Your task to perform on an android device: Go to Google maps Image 0: 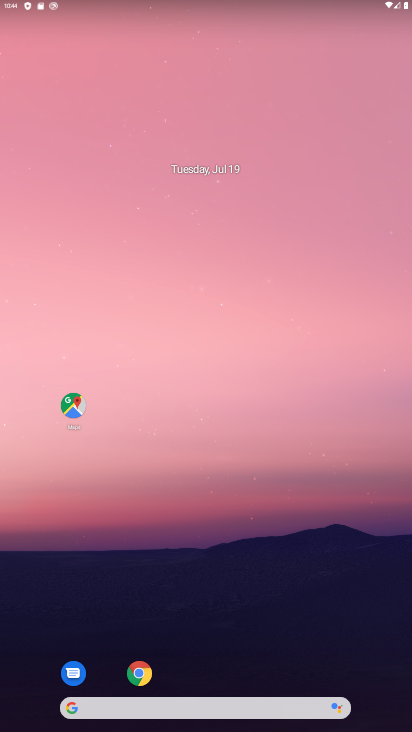
Step 0: click (74, 405)
Your task to perform on an android device: Go to Google maps Image 1: 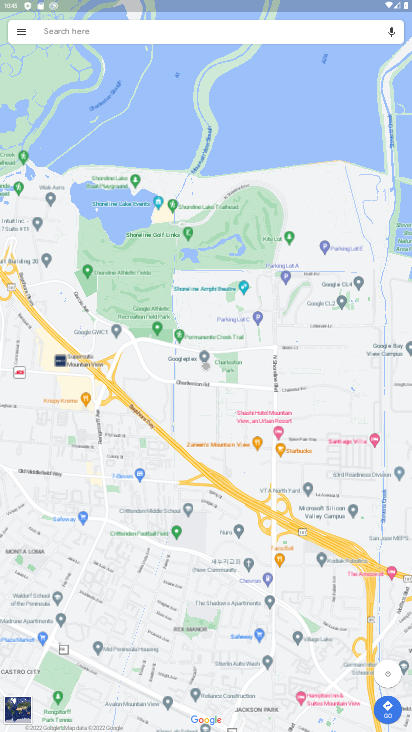
Step 1: task complete